Your task to perform on an android device: Open Reddit.com Image 0: 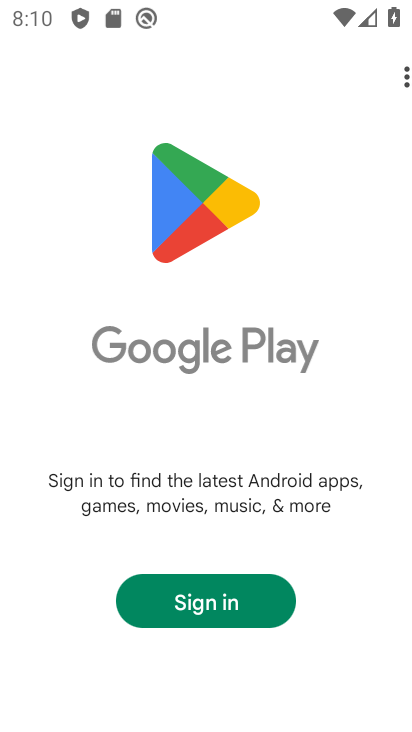
Step 0: press back button
Your task to perform on an android device: Open Reddit.com Image 1: 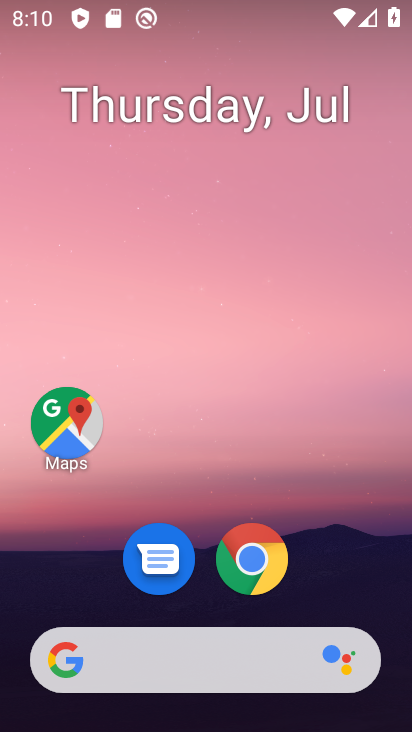
Step 1: click (239, 578)
Your task to perform on an android device: Open Reddit.com Image 2: 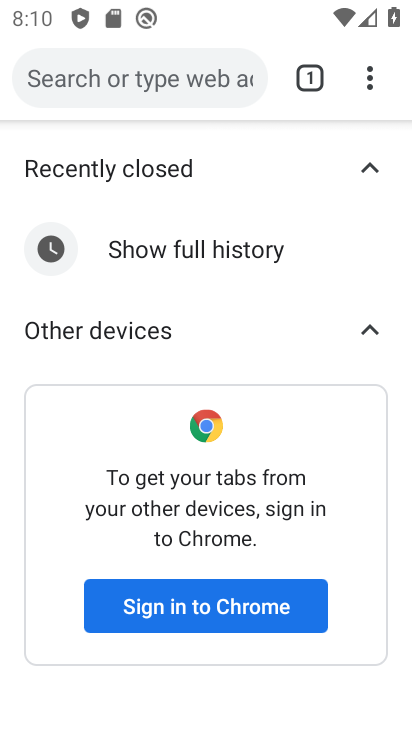
Step 2: click (310, 83)
Your task to perform on an android device: Open Reddit.com Image 3: 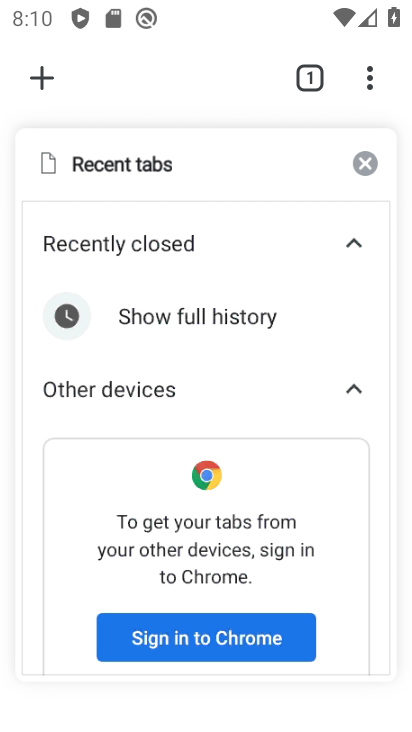
Step 3: click (58, 66)
Your task to perform on an android device: Open Reddit.com Image 4: 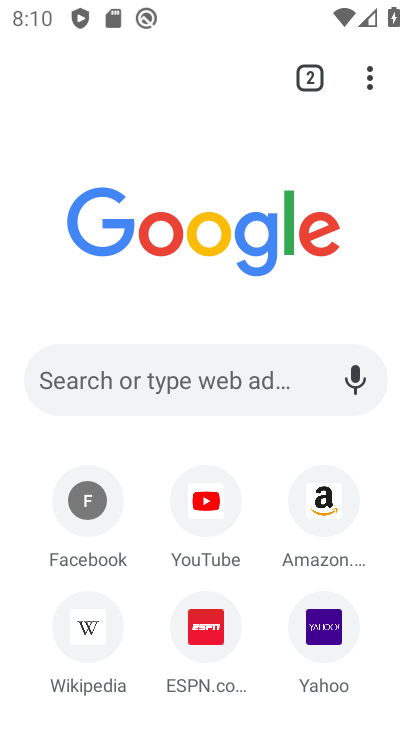
Step 4: click (150, 375)
Your task to perform on an android device: Open Reddit.com Image 5: 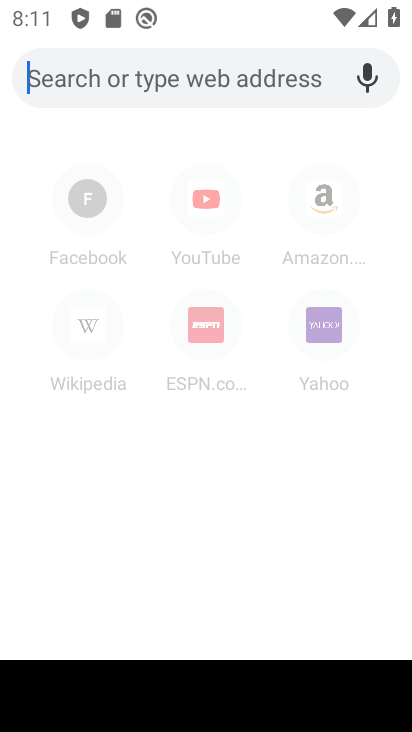
Step 5: type "reddit.com"
Your task to perform on an android device: Open Reddit.com Image 6: 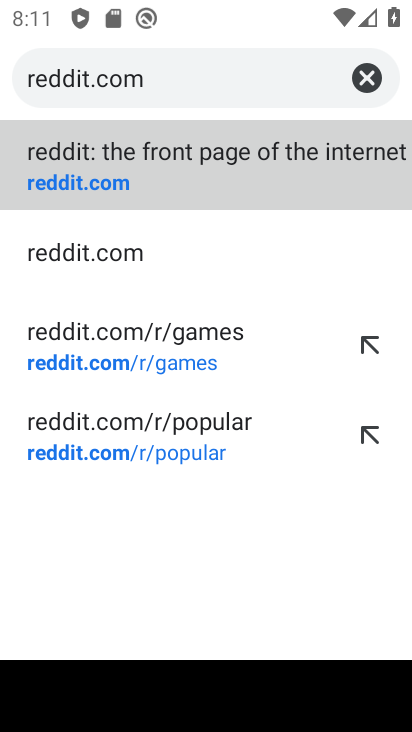
Step 6: click (145, 168)
Your task to perform on an android device: Open Reddit.com Image 7: 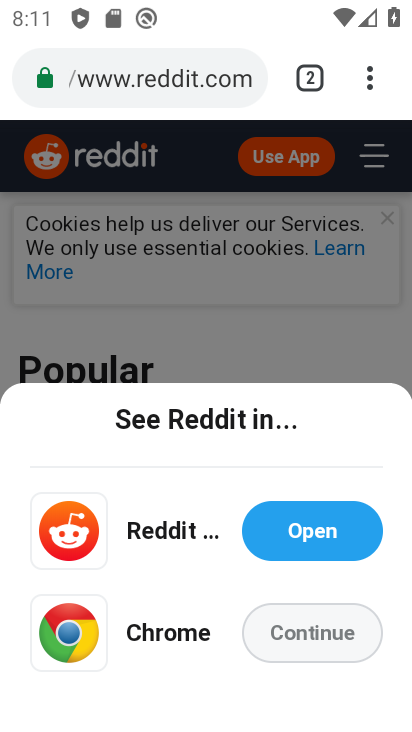
Step 7: task complete